Your task to perform on an android device: Find coffee shops on Maps Image 0: 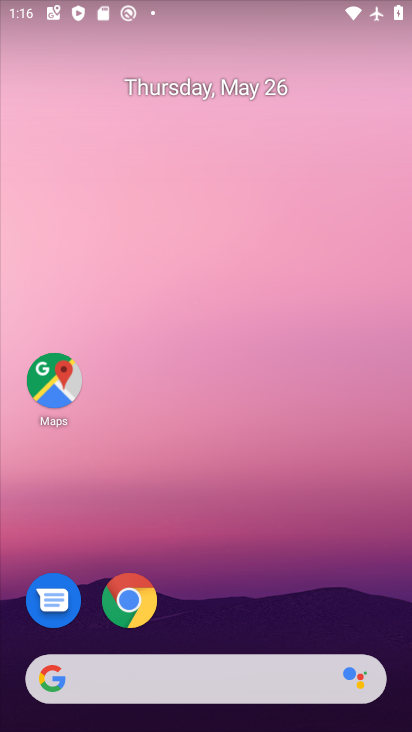
Step 0: click (52, 376)
Your task to perform on an android device: Find coffee shops on Maps Image 1: 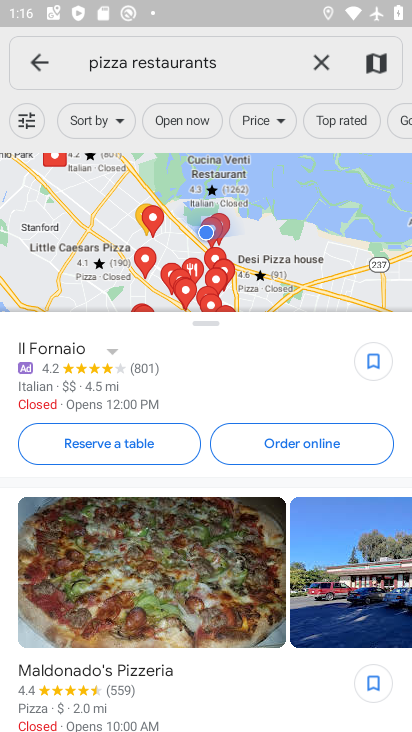
Step 1: click (215, 62)
Your task to perform on an android device: Find coffee shops on Maps Image 2: 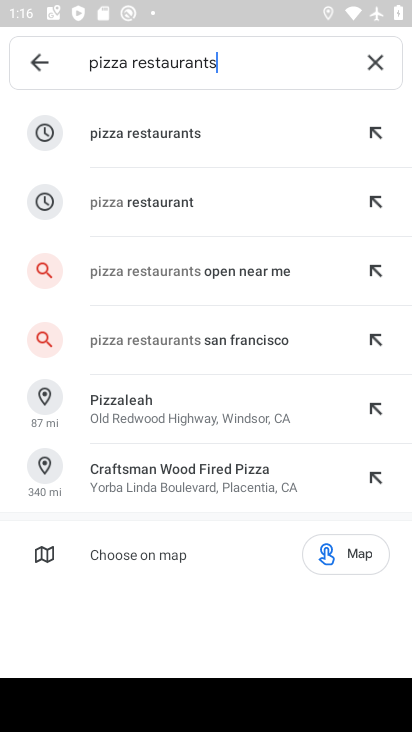
Step 2: click (364, 58)
Your task to perform on an android device: Find coffee shops on Maps Image 3: 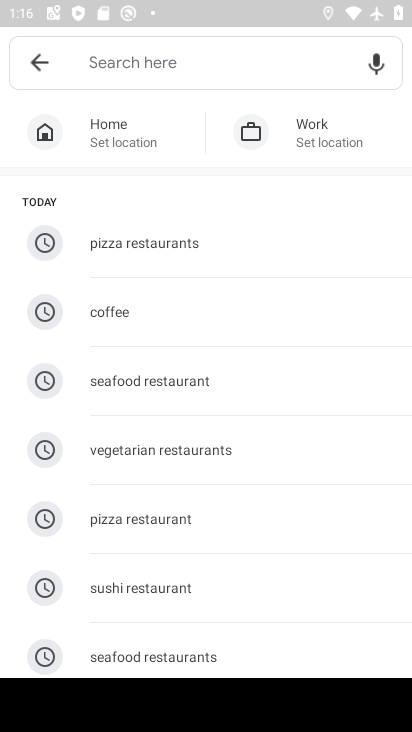
Step 3: type "coffee shops"
Your task to perform on an android device: Find coffee shops on Maps Image 4: 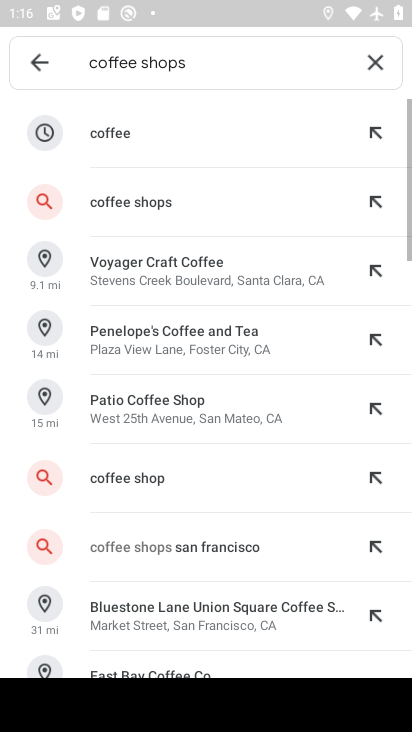
Step 4: click (126, 197)
Your task to perform on an android device: Find coffee shops on Maps Image 5: 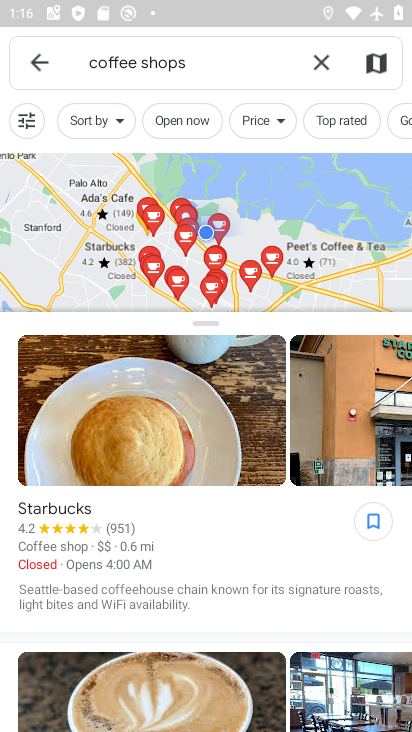
Step 5: task complete